Your task to perform on an android device: Open Amazon Image 0: 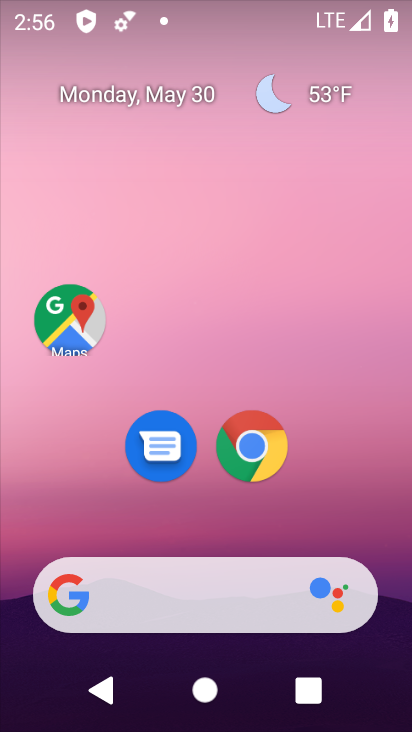
Step 0: click (251, 444)
Your task to perform on an android device: Open Amazon Image 1: 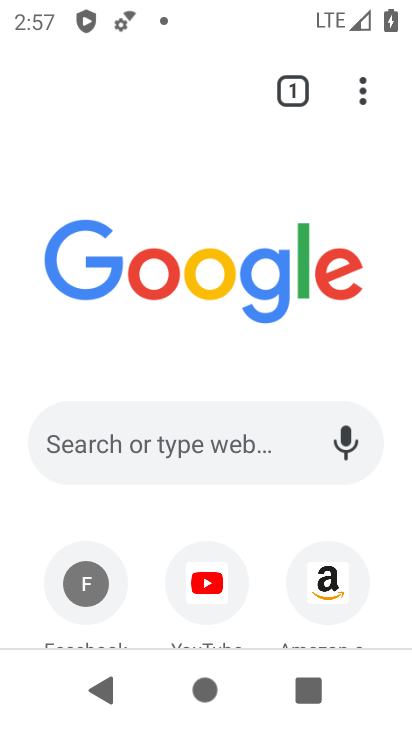
Step 1: click (179, 443)
Your task to perform on an android device: Open Amazon Image 2: 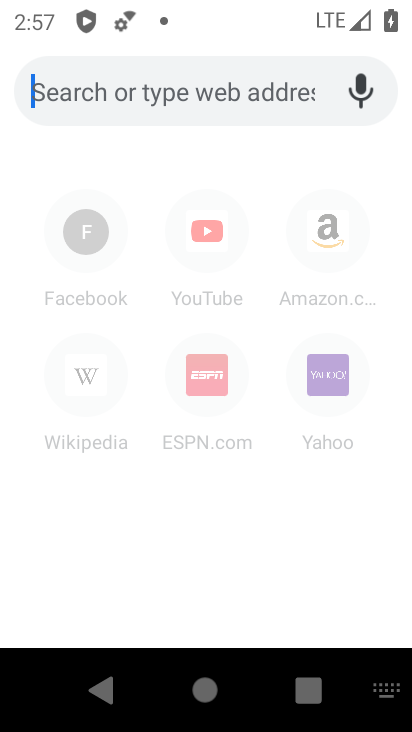
Step 2: type "Amazon"
Your task to perform on an android device: Open Amazon Image 3: 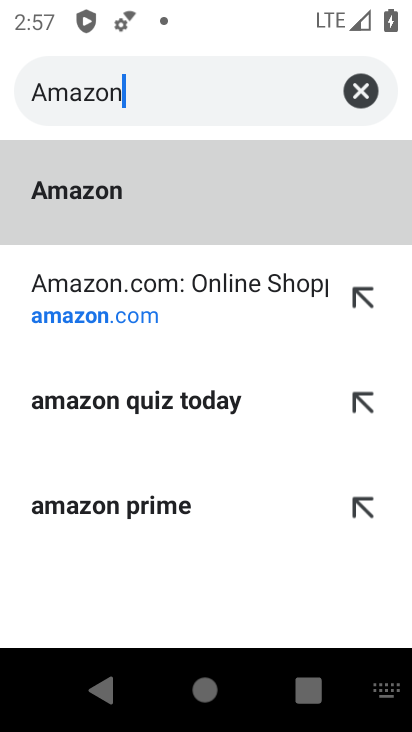
Step 3: click (149, 202)
Your task to perform on an android device: Open Amazon Image 4: 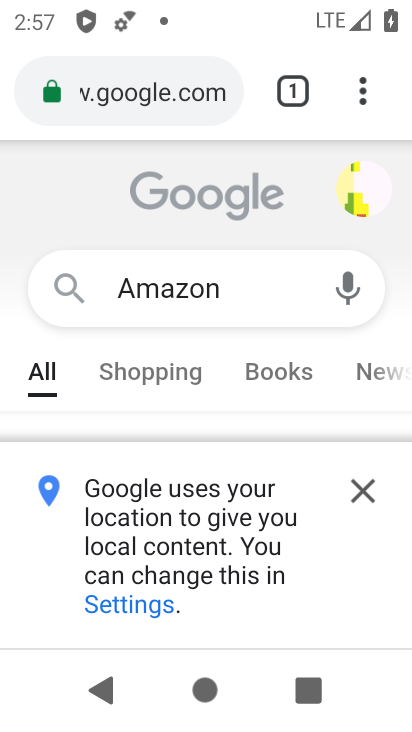
Step 4: click (362, 490)
Your task to perform on an android device: Open Amazon Image 5: 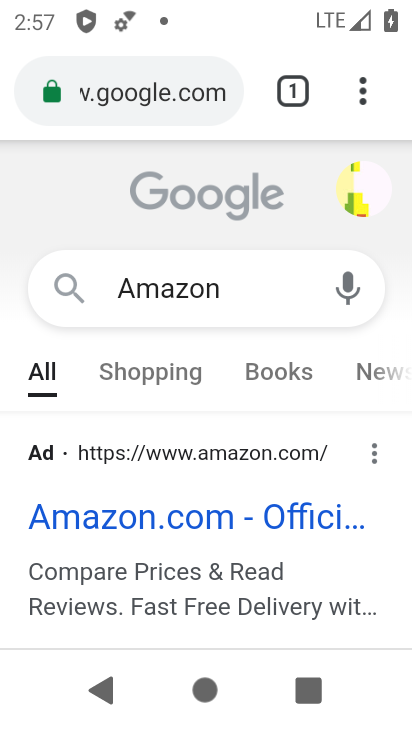
Step 5: click (311, 510)
Your task to perform on an android device: Open Amazon Image 6: 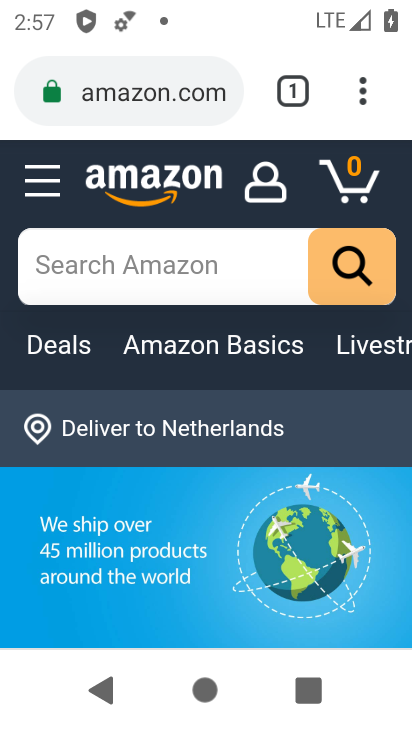
Step 6: task complete